Your task to perform on an android device: Open sound settings Image 0: 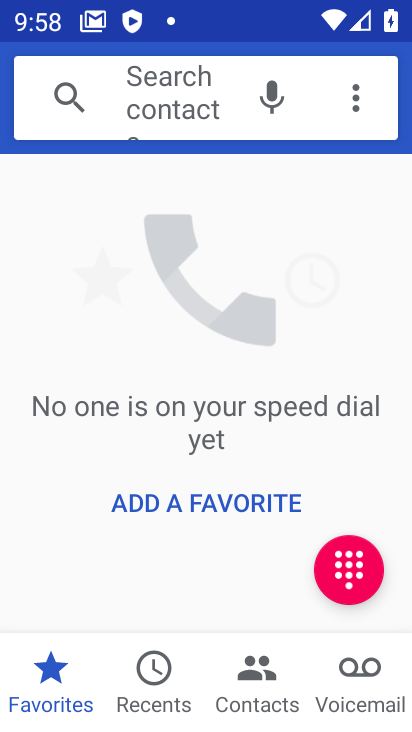
Step 0: press home button
Your task to perform on an android device: Open sound settings Image 1: 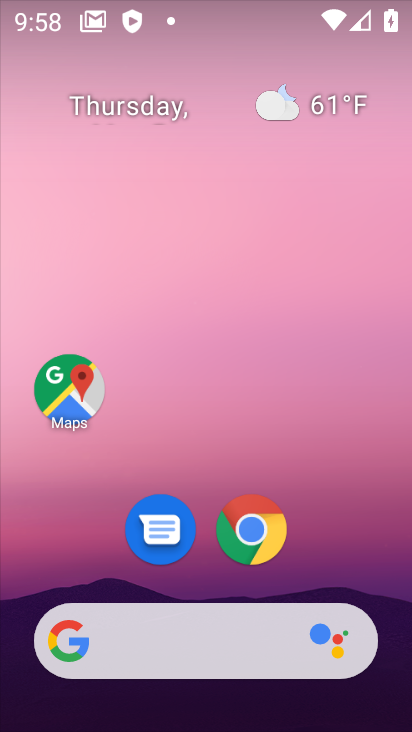
Step 1: drag from (393, 612) to (377, 306)
Your task to perform on an android device: Open sound settings Image 2: 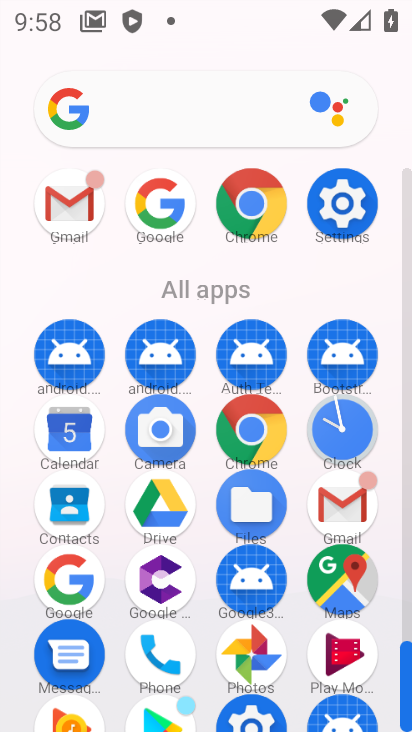
Step 2: click (347, 193)
Your task to perform on an android device: Open sound settings Image 3: 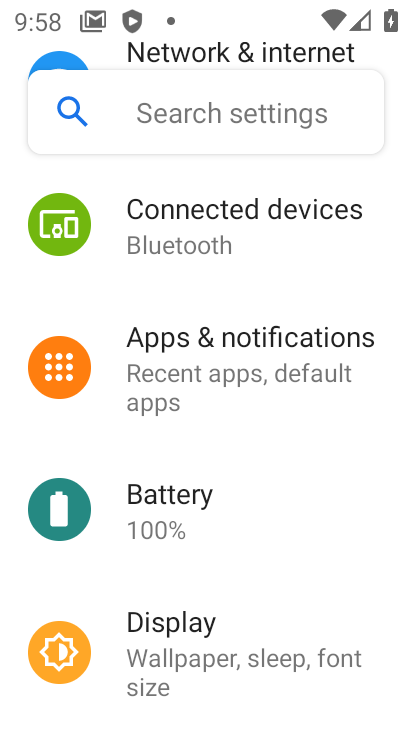
Step 3: drag from (287, 654) to (286, 302)
Your task to perform on an android device: Open sound settings Image 4: 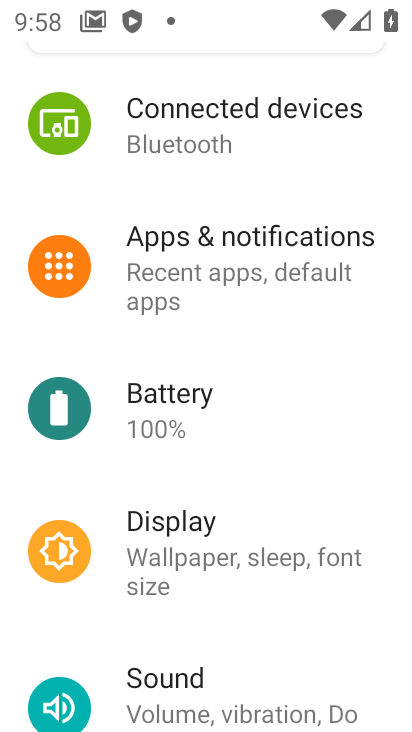
Step 4: click (178, 687)
Your task to perform on an android device: Open sound settings Image 5: 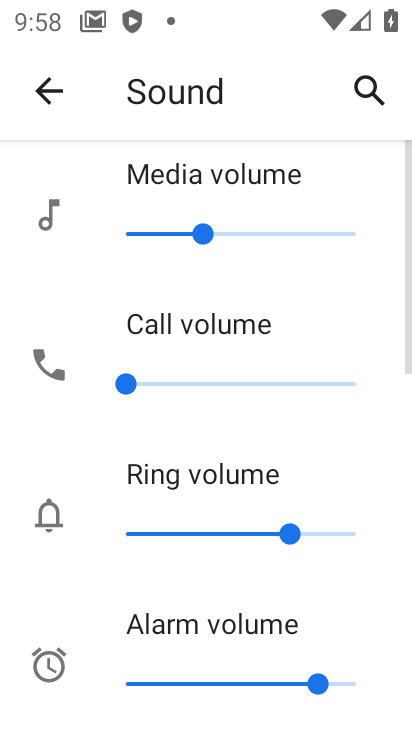
Step 5: task complete